Your task to perform on an android device: Open notification settings Image 0: 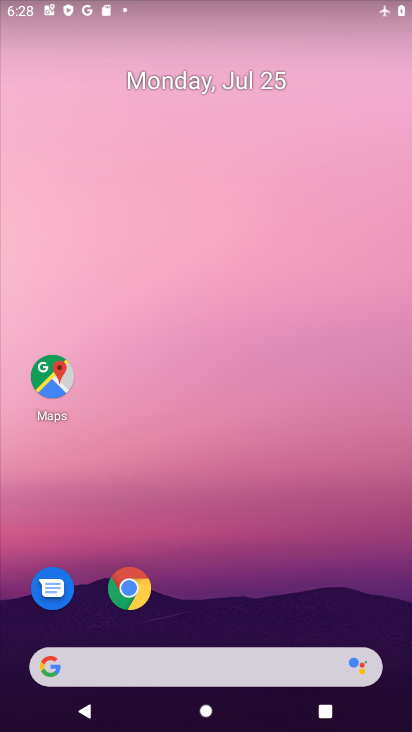
Step 0: drag from (264, 539) to (253, 58)
Your task to perform on an android device: Open notification settings Image 1: 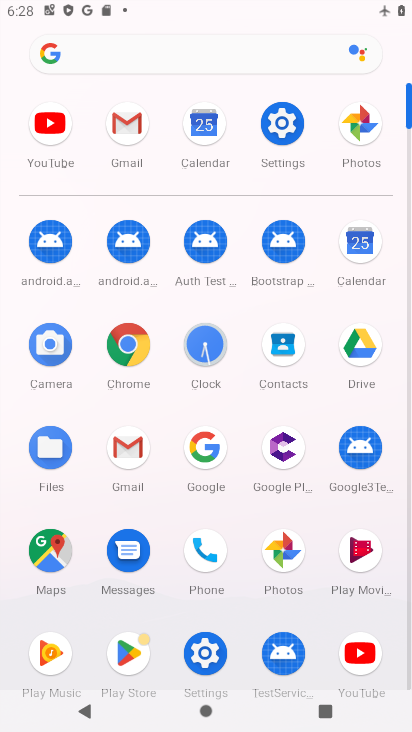
Step 1: click (203, 648)
Your task to perform on an android device: Open notification settings Image 2: 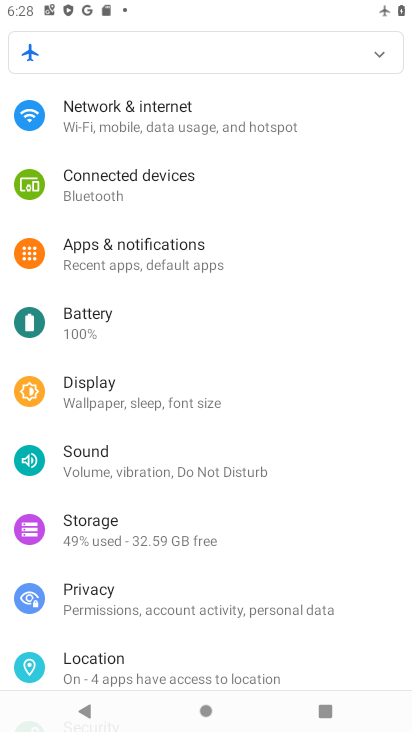
Step 2: click (209, 255)
Your task to perform on an android device: Open notification settings Image 3: 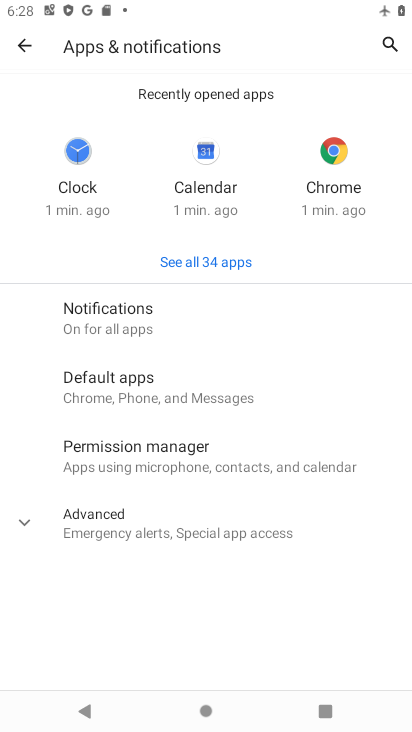
Step 3: task complete